Your task to perform on an android device: Open sound settings Image 0: 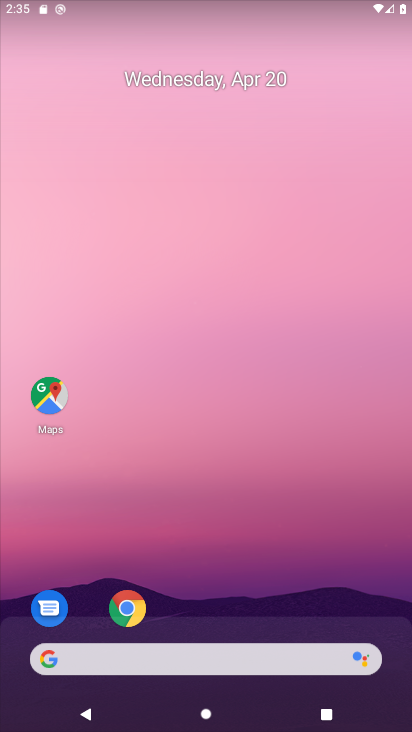
Step 0: drag from (195, 634) to (285, 112)
Your task to perform on an android device: Open sound settings Image 1: 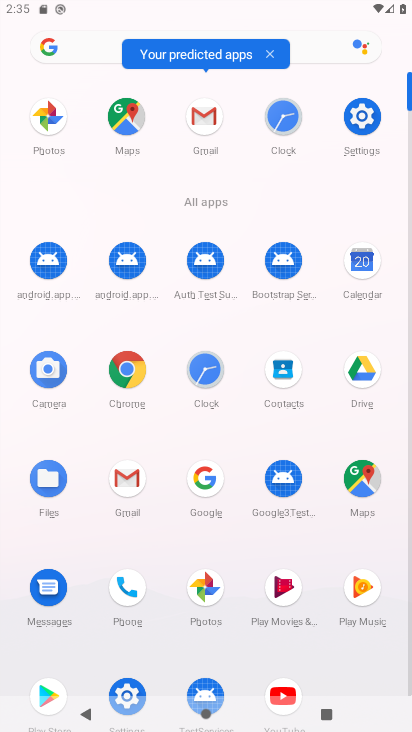
Step 1: click (369, 115)
Your task to perform on an android device: Open sound settings Image 2: 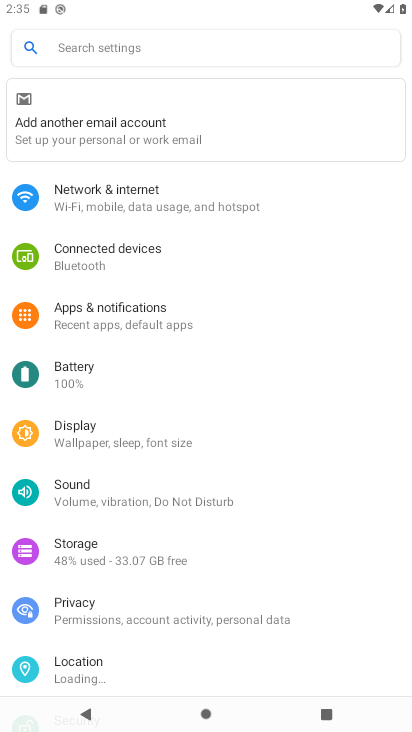
Step 2: click (98, 495)
Your task to perform on an android device: Open sound settings Image 3: 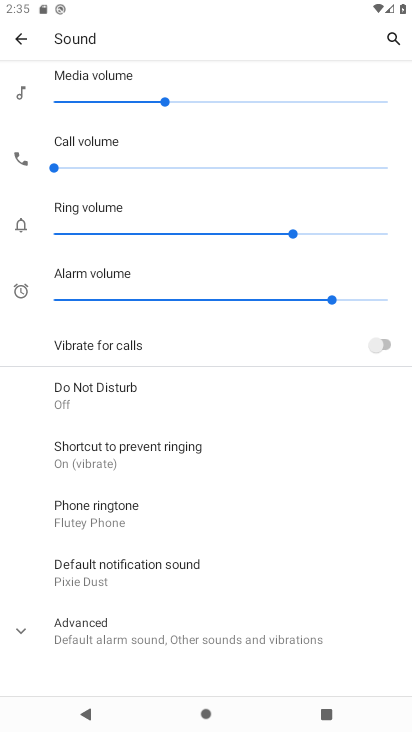
Step 3: task complete